Your task to perform on an android device: toggle wifi Image 0: 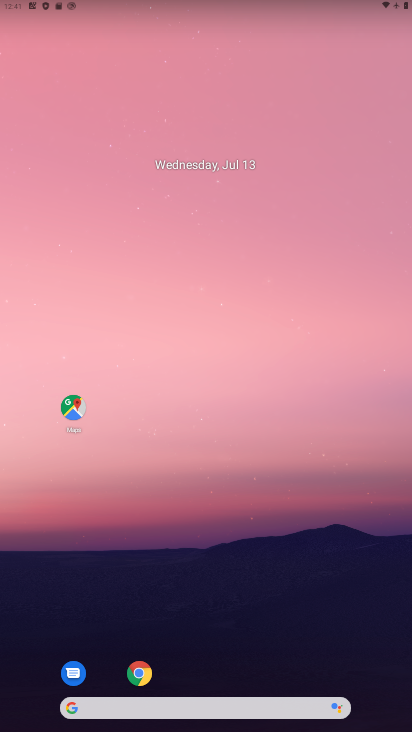
Step 0: drag from (294, 654) to (270, 226)
Your task to perform on an android device: toggle wifi Image 1: 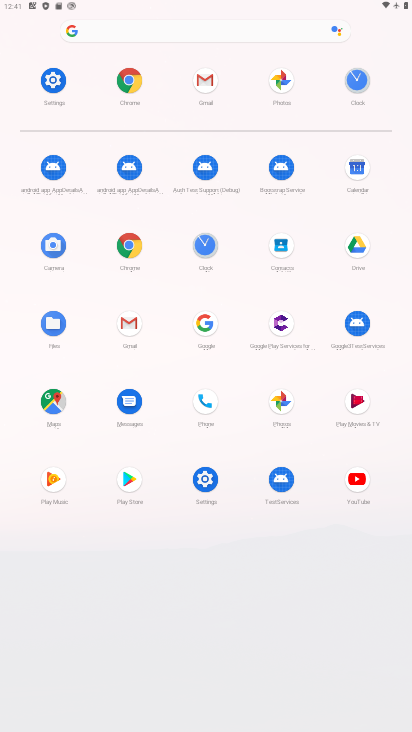
Step 1: click (193, 487)
Your task to perform on an android device: toggle wifi Image 2: 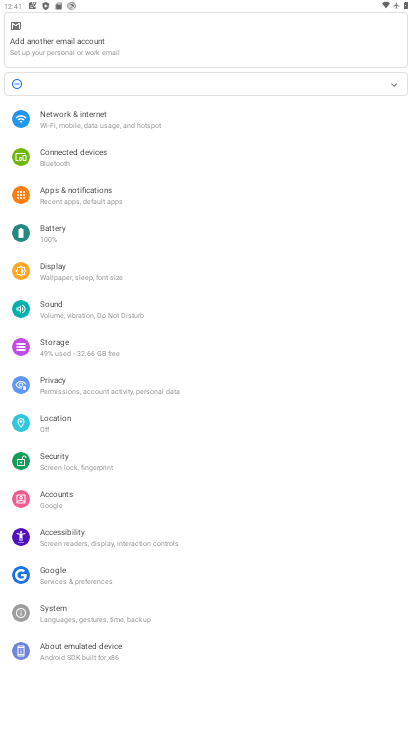
Step 2: click (149, 115)
Your task to perform on an android device: toggle wifi Image 3: 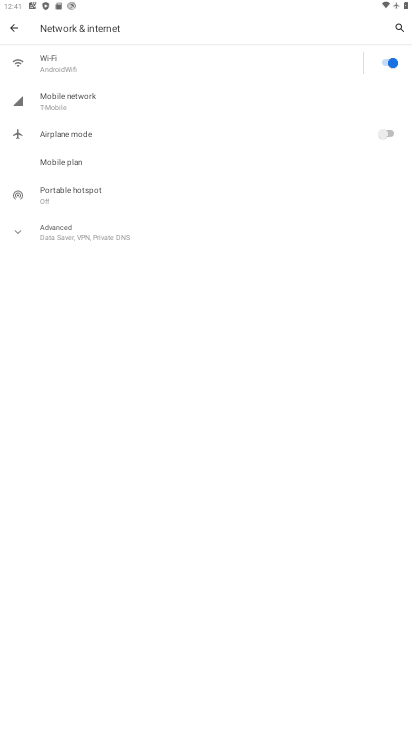
Step 3: click (379, 134)
Your task to perform on an android device: toggle wifi Image 4: 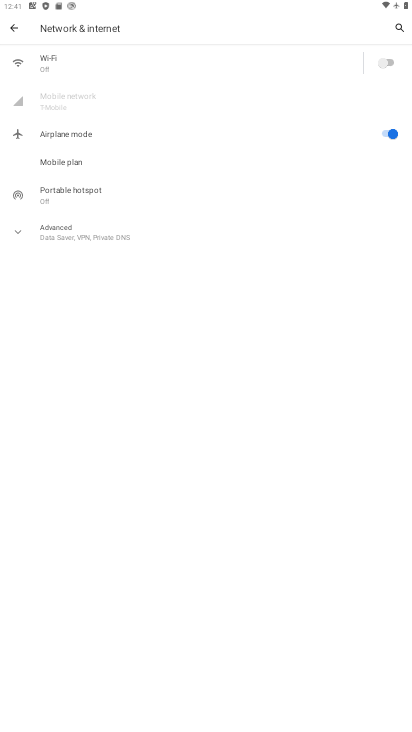
Step 4: click (389, 60)
Your task to perform on an android device: toggle wifi Image 5: 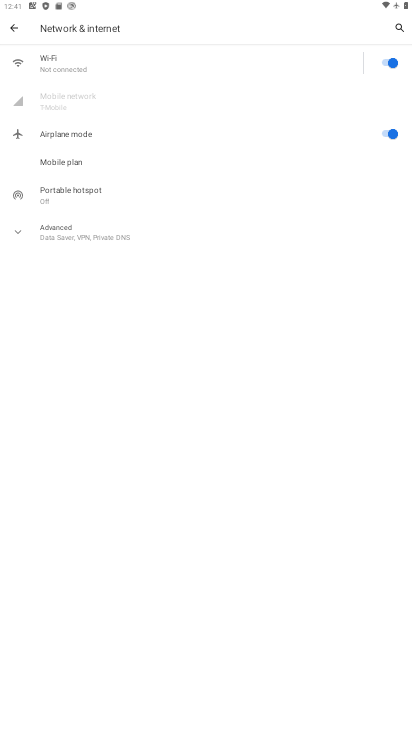
Step 5: task complete